Your task to perform on an android device: turn off sleep mode Image 0: 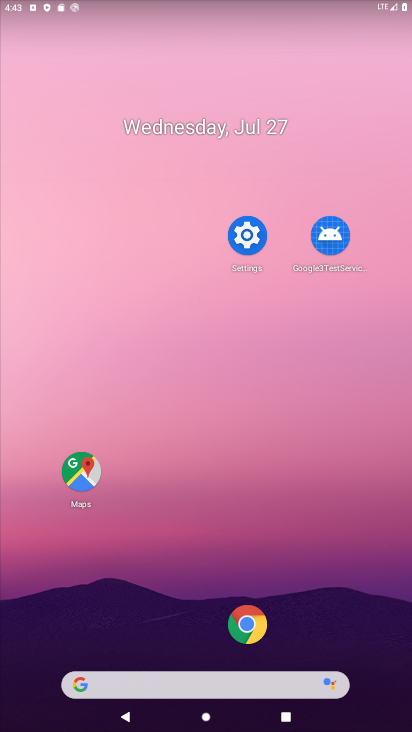
Step 0: click (242, 215)
Your task to perform on an android device: turn off sleep mode Image 1: 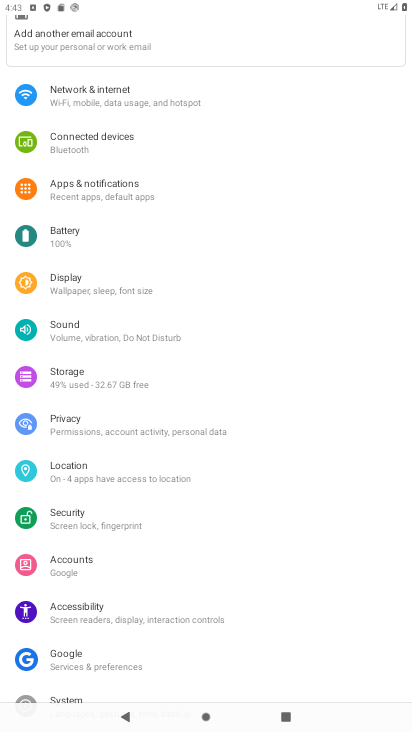
Step 1: task complete